Your task to perform on an android device: empty trash in the gmail app Image 0: 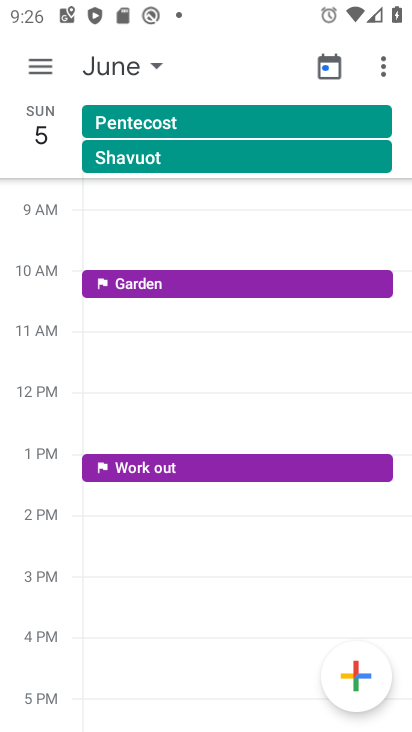
Step 0: press home button
Your task to perform on an android device: empty trash in the gmail app Image 1: 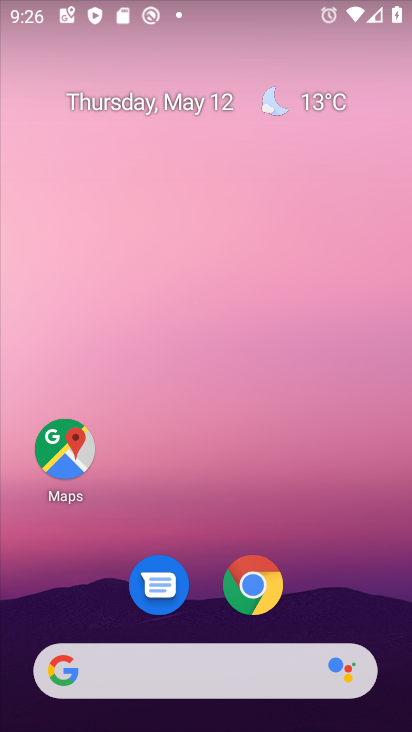
Step 1: drag from (227, 502) to (221, 55)
Your task to perform on an android device: empty trash in the gmail app Image 2: 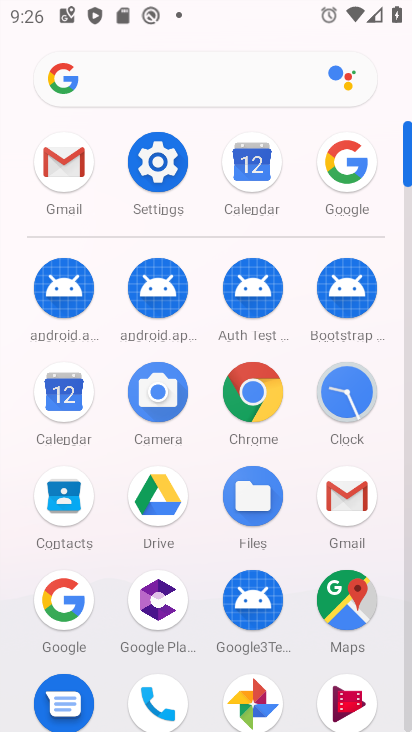
Step 2: click (74, 163)
Your task to perform on an android device: empty trash in the gmail app Image 3: 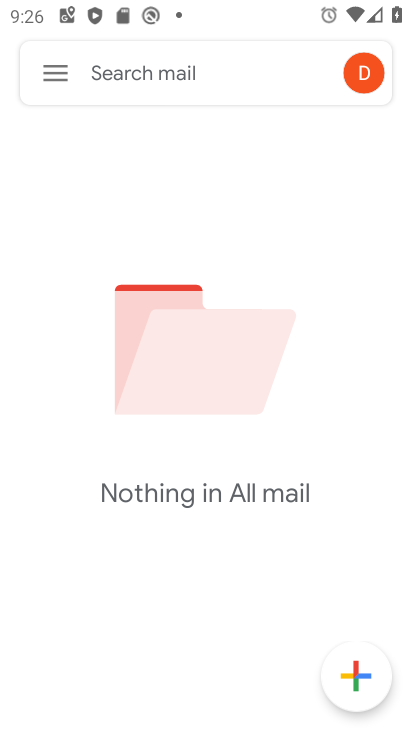
Step 3: click (57, 61)
Your task to perform on an android device: empty trash in the gmail app Image 4: 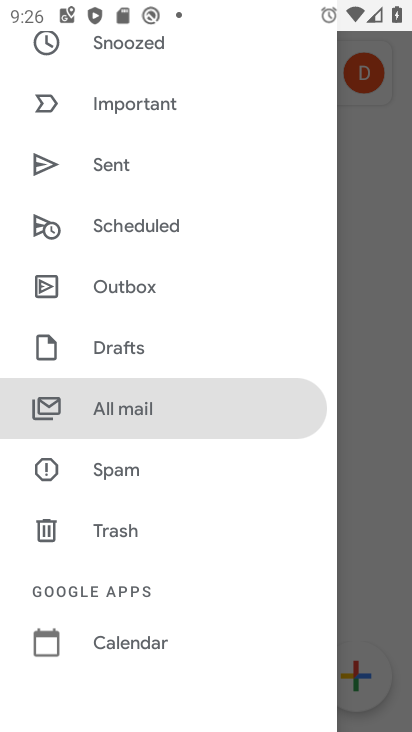
Step 4: click (136, 521)
Your task to perform on an android device: empty trash in the gmail app Image 5: 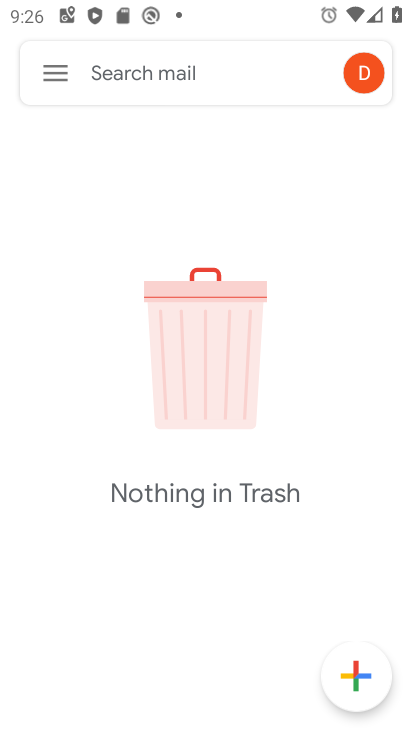
Step 5: task complete